Your task to perform on an android device: Show me productivity apps on the Play Store Image 0: 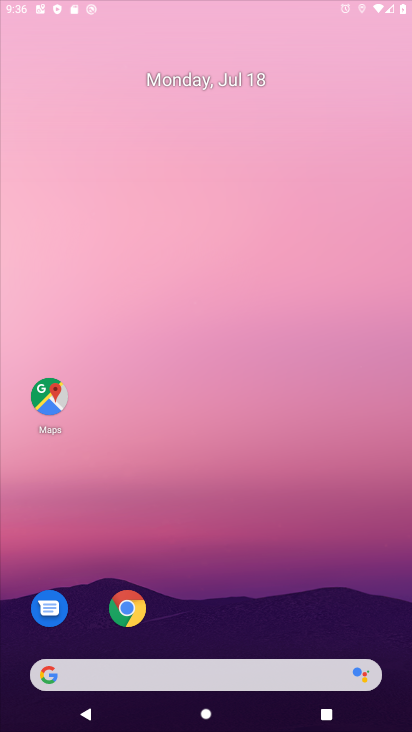
Step 0: drag from (232, 301) to (217, 122)
Your task to perform on an android device: Show me productivity apps on the Play Store Image 1: 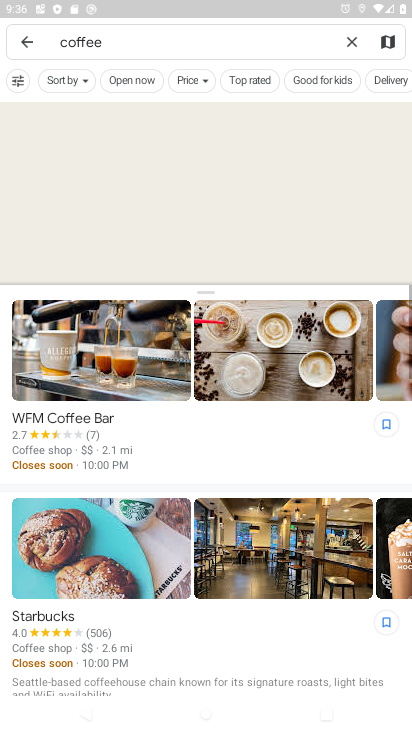
Step 1: press home button
Your task to perform on an android device: Show me productivity apps on the Play Store Image 2: 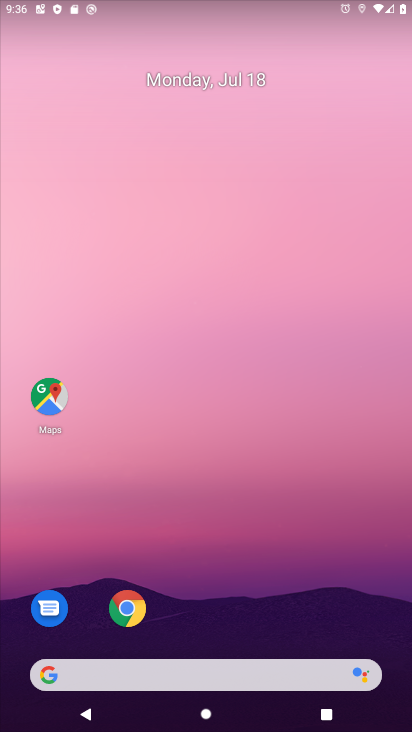
Step 2: drag from (43, 698) to (253, 231)
Your task to perform on an android device: Show me productivity apps on the Play Store Image 3: 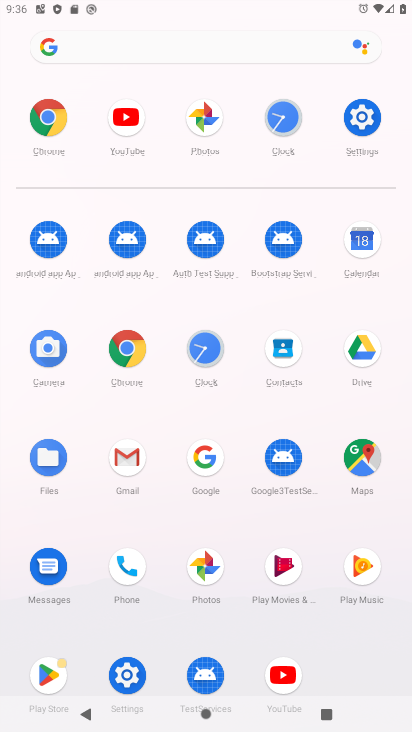
Step 3: click (44, 679)
Your task to perform on an android device: Show me productivity apps on the Play Store Image 4: 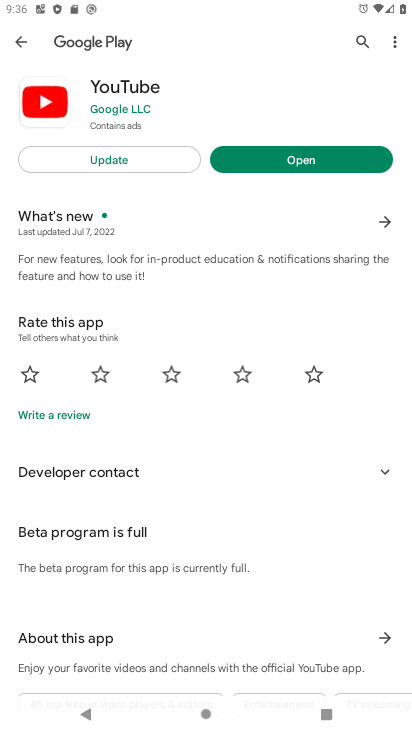
Step 4: click (15, 36)
Your task to perform on an android device: Show me productivity apps on the Play Store Image 5: 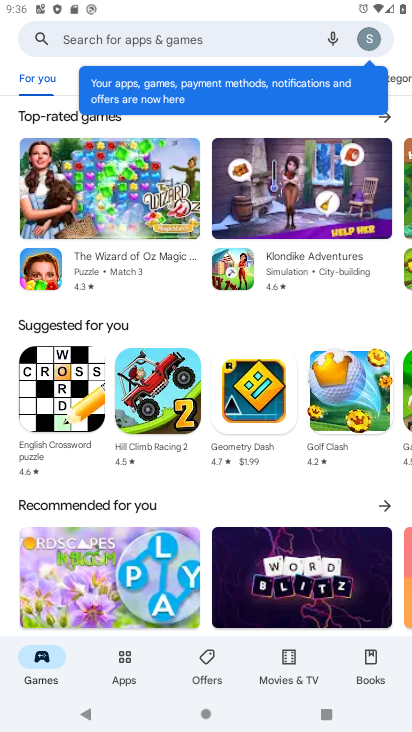
Step 5: click (84, 33)
Your task to perform on an android device: Show me productivity apps on the Play Store Image 6: 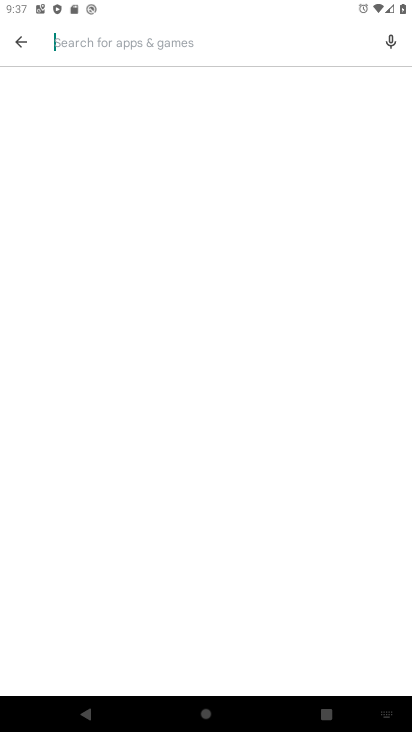
Step 6: type "productivity apps"
Your task to perform on an android device: Show me productivity apps on the Play Store Image 7: 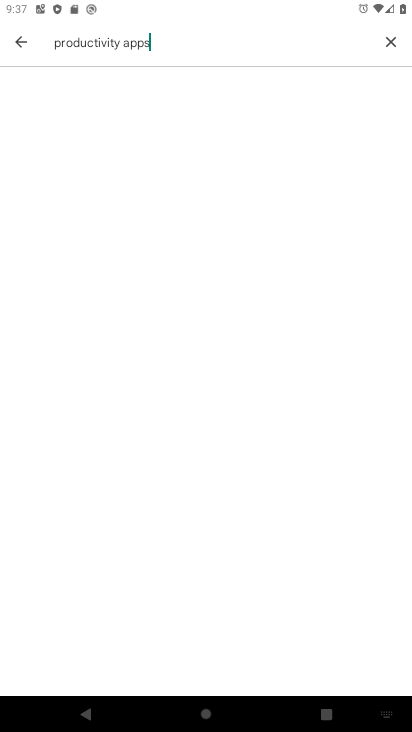
Step 7: type ""
Your task to perform on an android device: Show me productivity apps on the Play Store Image 8: 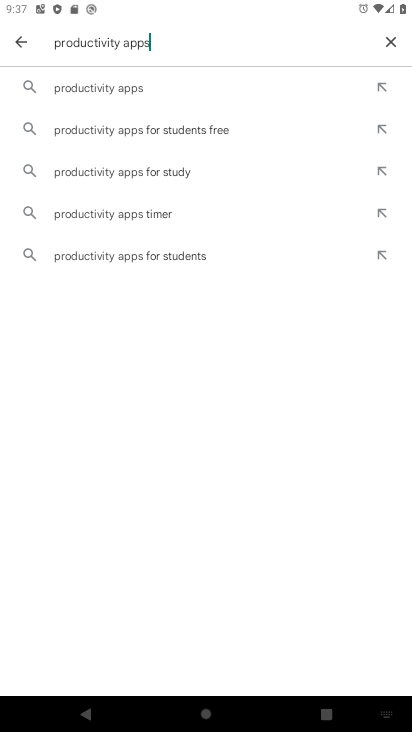
Step 8: click (91, 89)
Your task to perform on an android device: Show me productivity apps on the Play Store Image 9: 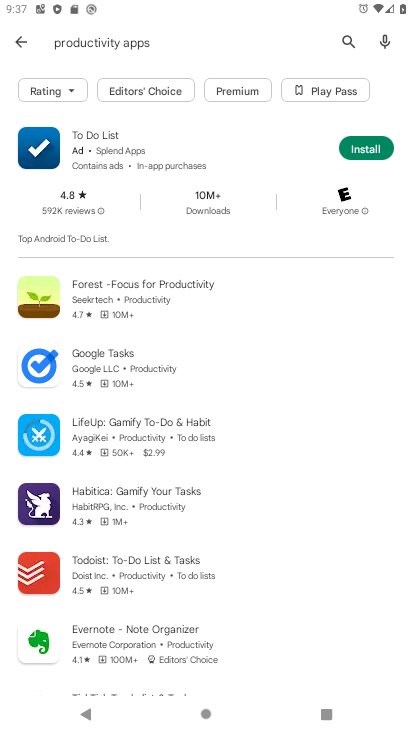
Step 9: task complete